Your task to perform on an android device: What's the weather today? Image 0: 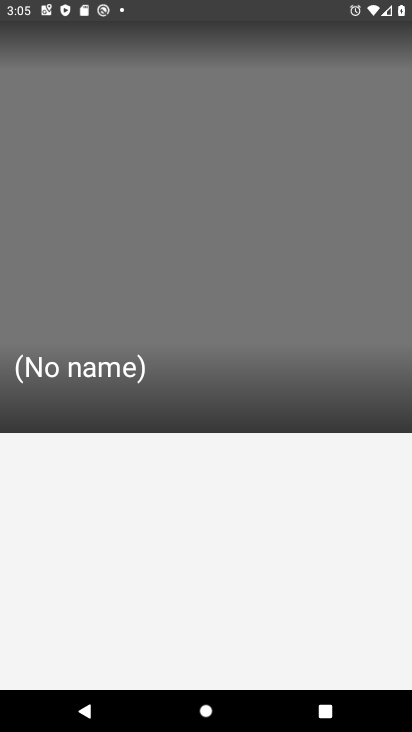
Step 0: drag from (232, 9) to (270, 485)
Your task to perform on an android device: What's the weather today? Image 1: 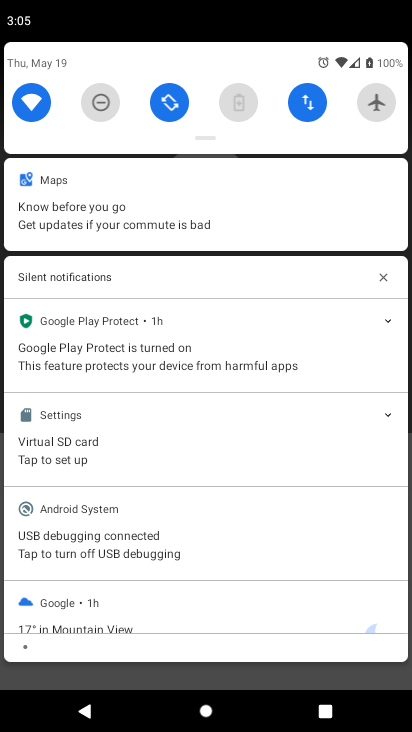
Step 1: press home button
Your task to perform on an android device: What's the weather today? Image 2: 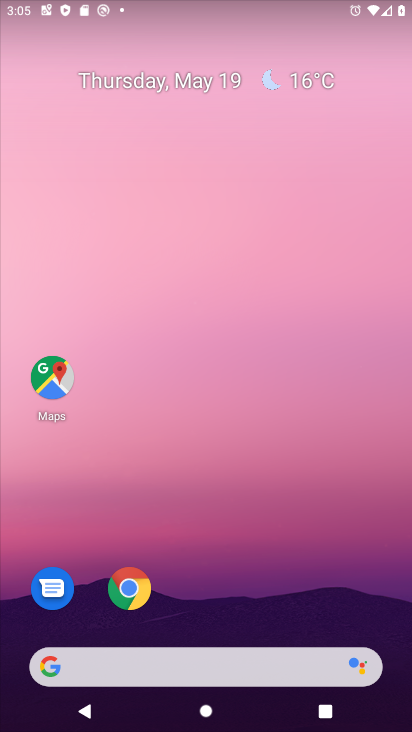
Step 2: click (311, 77)
Your task to perform on an android device: What's the weather today? Image 3: 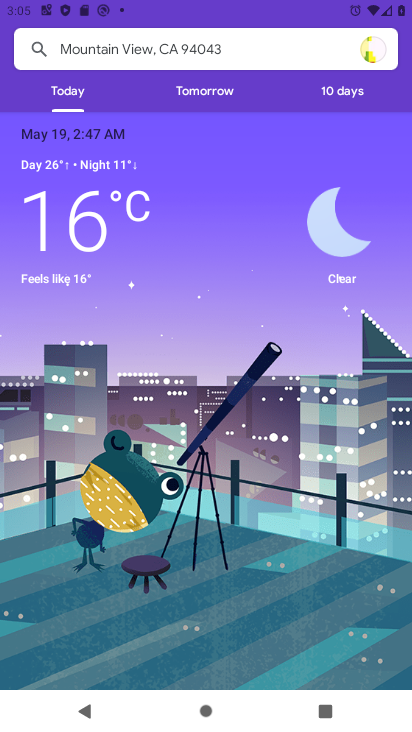
Step 3: task complete